Your task to perform on an android device: check google app version Image 0: 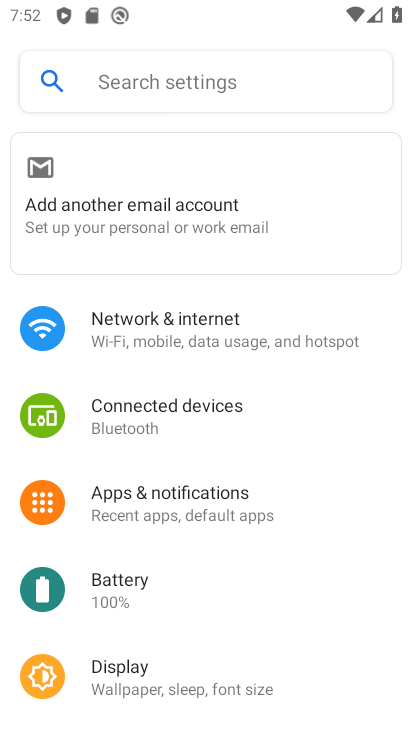
Step 0: press home button
Your task to perform on an android device: check google app version Image 1: 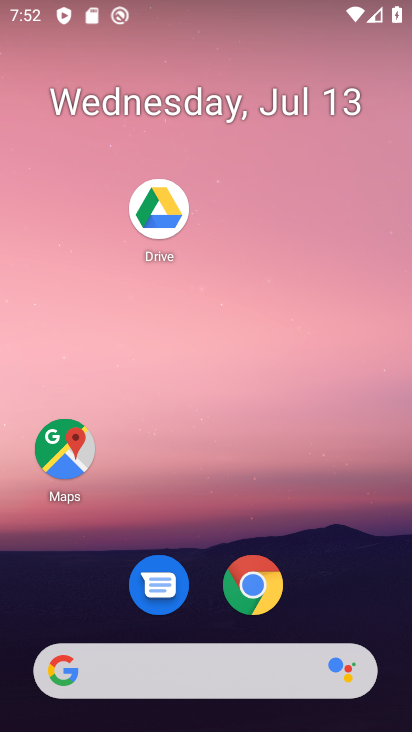
Step 1: drag from (162, 673) to (311, 84)
Your task to perform on an android device: check google app version Image 2: 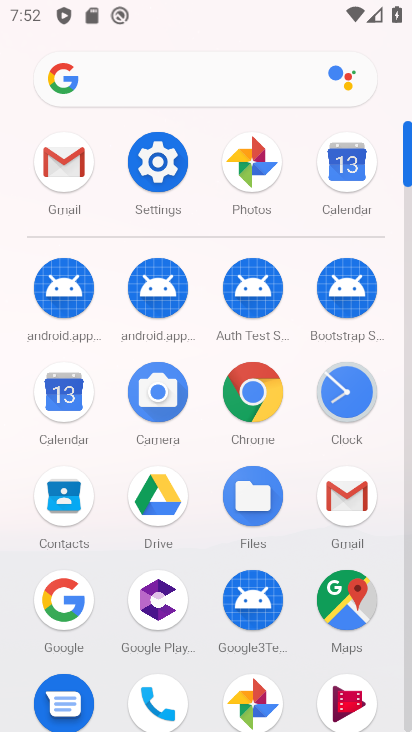
Step 2: drag from (204, 595) to (298, 368)
Your task to perform on an android device: check google app version Image 3: 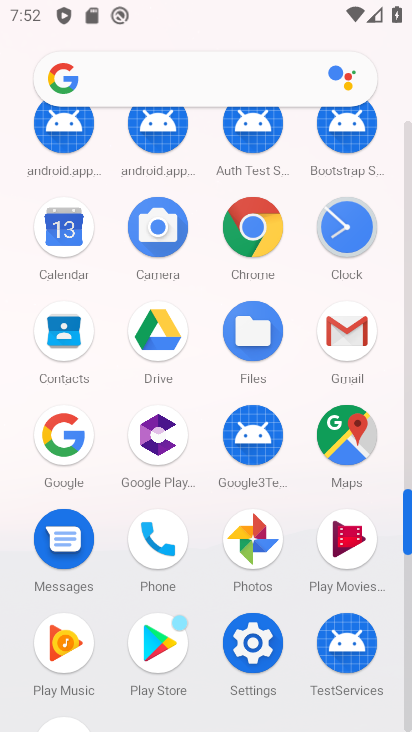
Step 3: click (61, 429)
Your task to perform on an android device: check google app version Image 4: 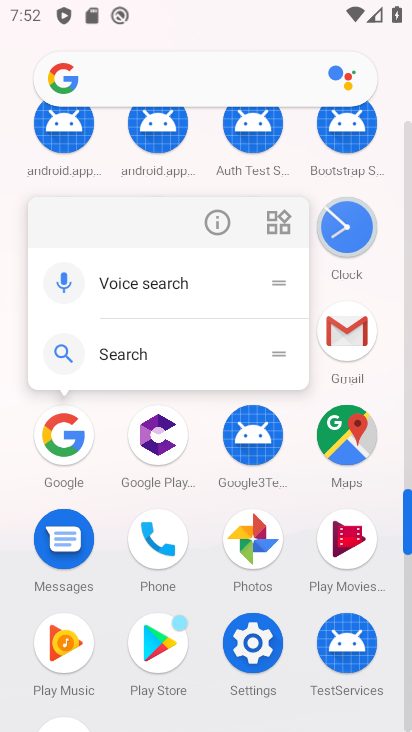
Step 4: click (214, 231)
Your task to perform on an android device: check google app version Image 5: 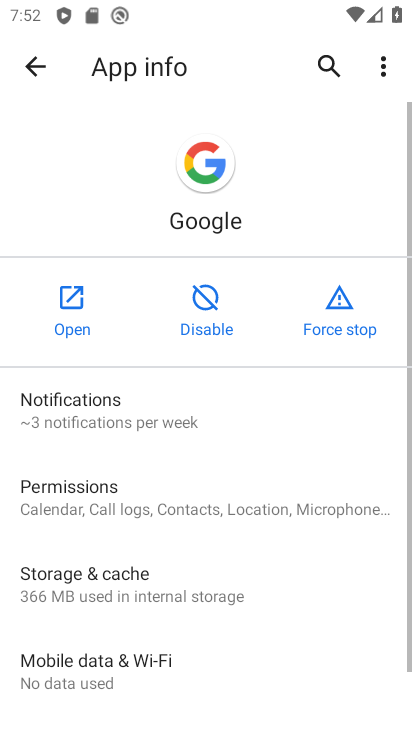
Step 5: drag from (238, 618) to (329, 192)
Your task to perform on an android device: check google app version Image 6: 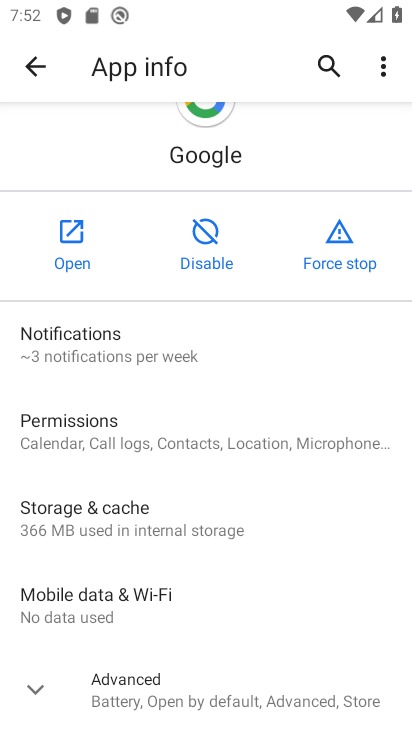
Step 6: click (151, 697)
Your task to perform on an android device: check google app version Image 7: 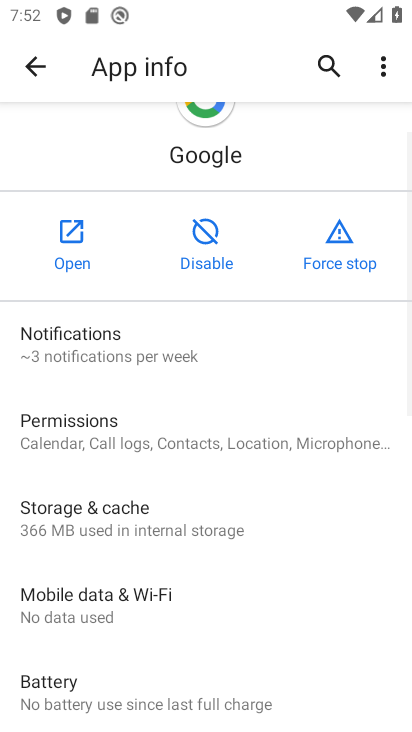
Step 7: task complete